Your task to perform on an android device: toggle airplane mode Image 0: 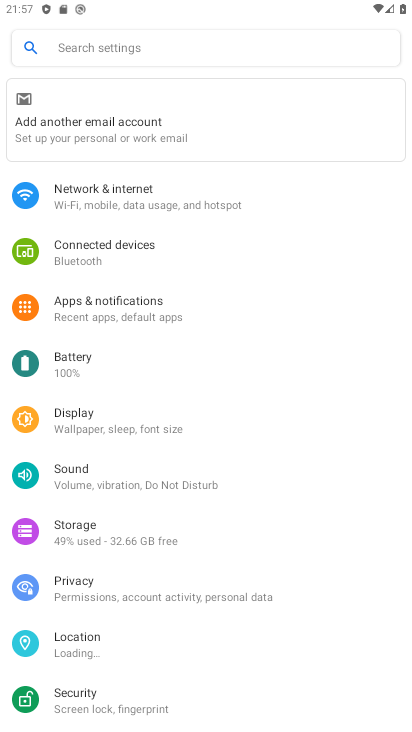
Step 0: drag from (276, 8) to (248, 580)
Your task to perform on an android device: toggle airplane mode Image 1: 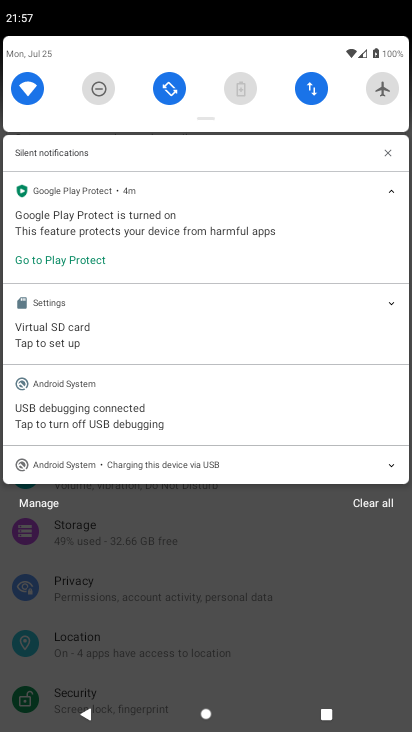
Step 1: click (383, 87)
Your task to perform on an android device: toggle airplane mode Image 2: 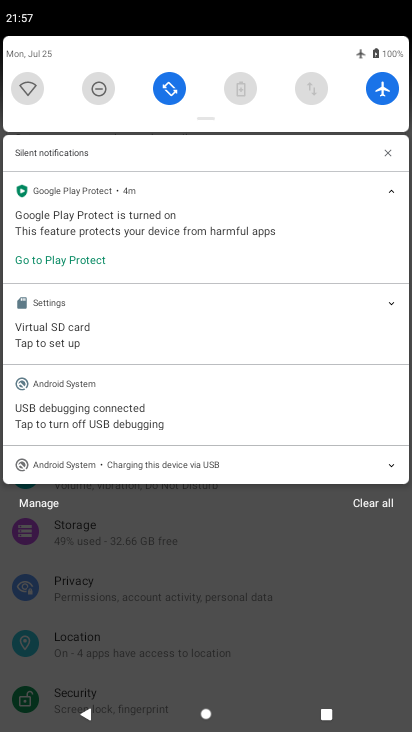
Step 2: task complete